Your task to perform on an android device: Open battery settings Image 0: 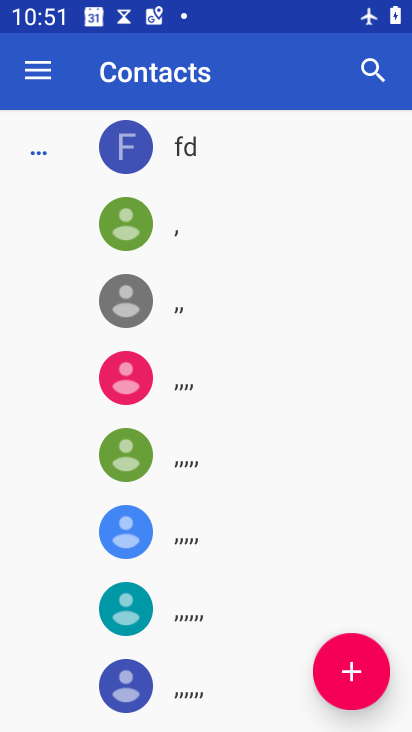
Step 0: press home button
Your task to perform on an android device: Open battery settings Image 1: 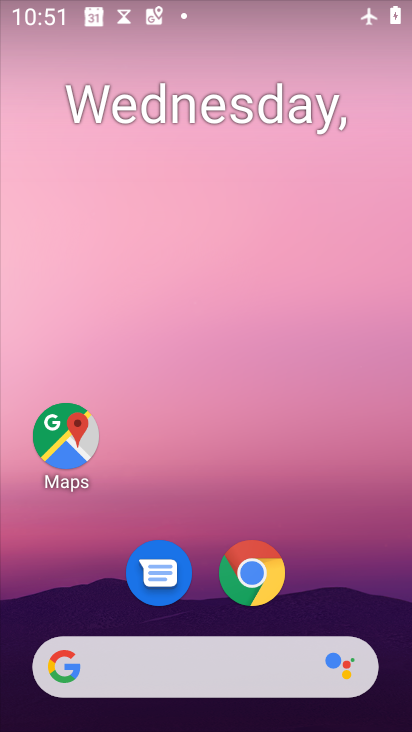
Step 1: drag from (340, 579) to (340, 269)
Your task to perform on an android device: Open battery settings Image 2: 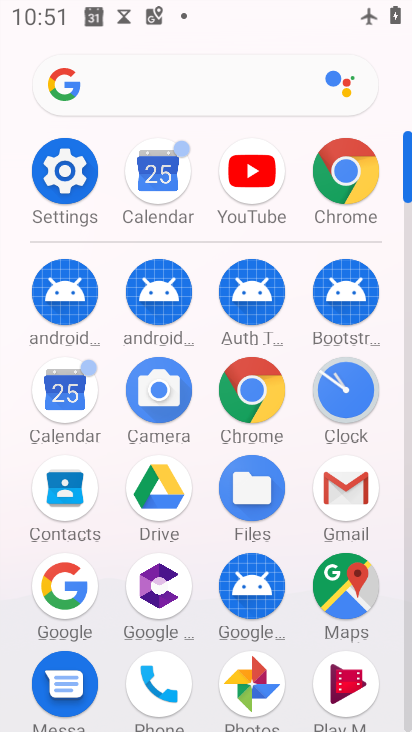
Step 2: click (58, 157)
Your task to perform on an android device: Open battery settings Image 3: 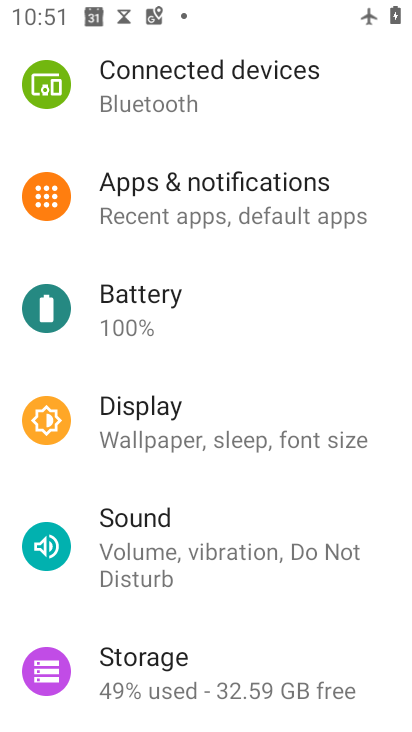
Step 3: click (167, 283)
Your task to perform on an android device: Open battery settings Image 4: 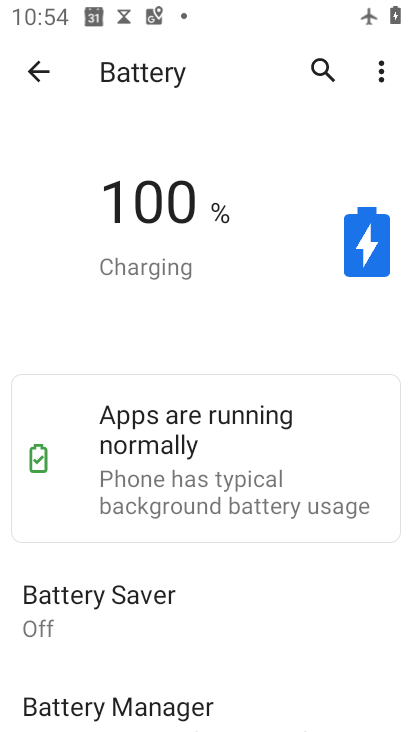
Step 4: task complete